Your task to perform on an android device: Open Google Image 0: 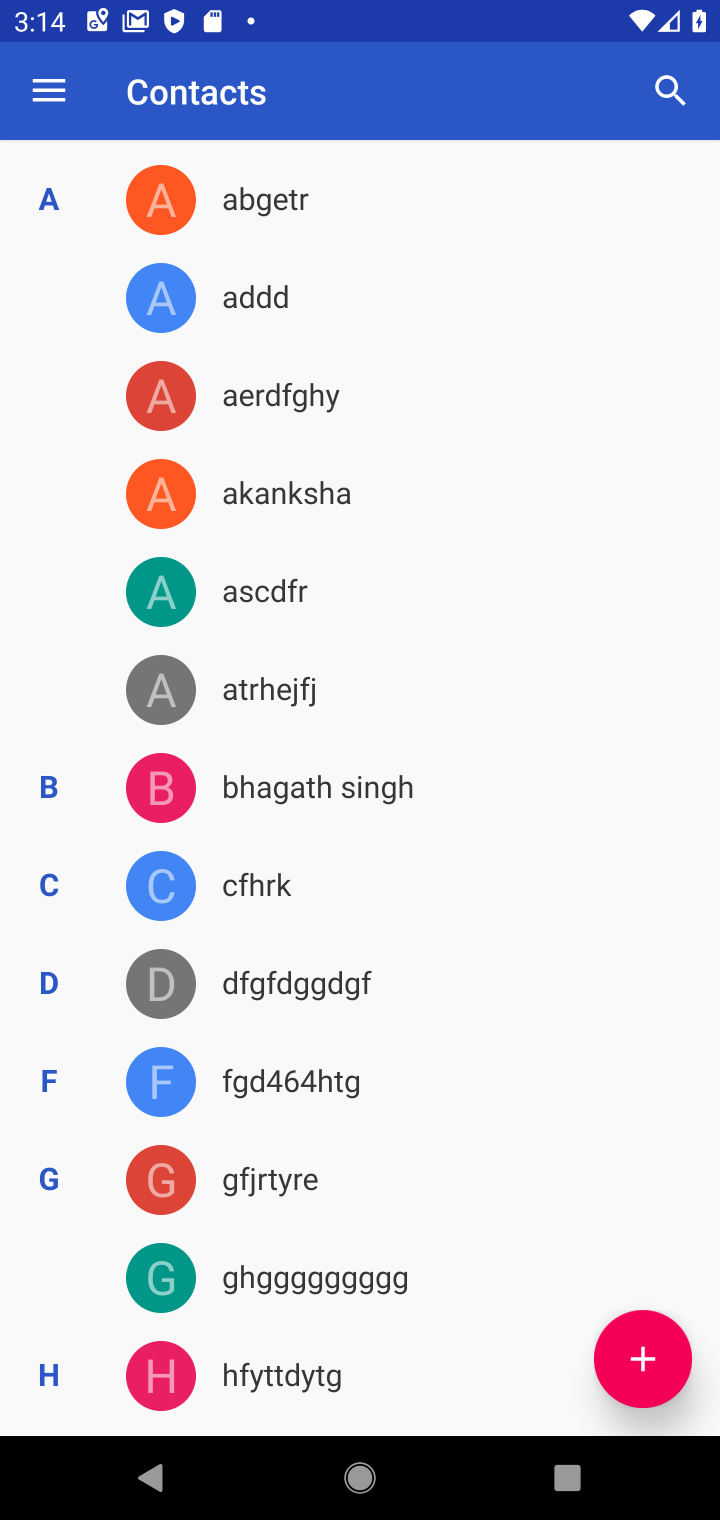
Step 0: press home button
Your task to perform on an android device: Open Google Image 1: 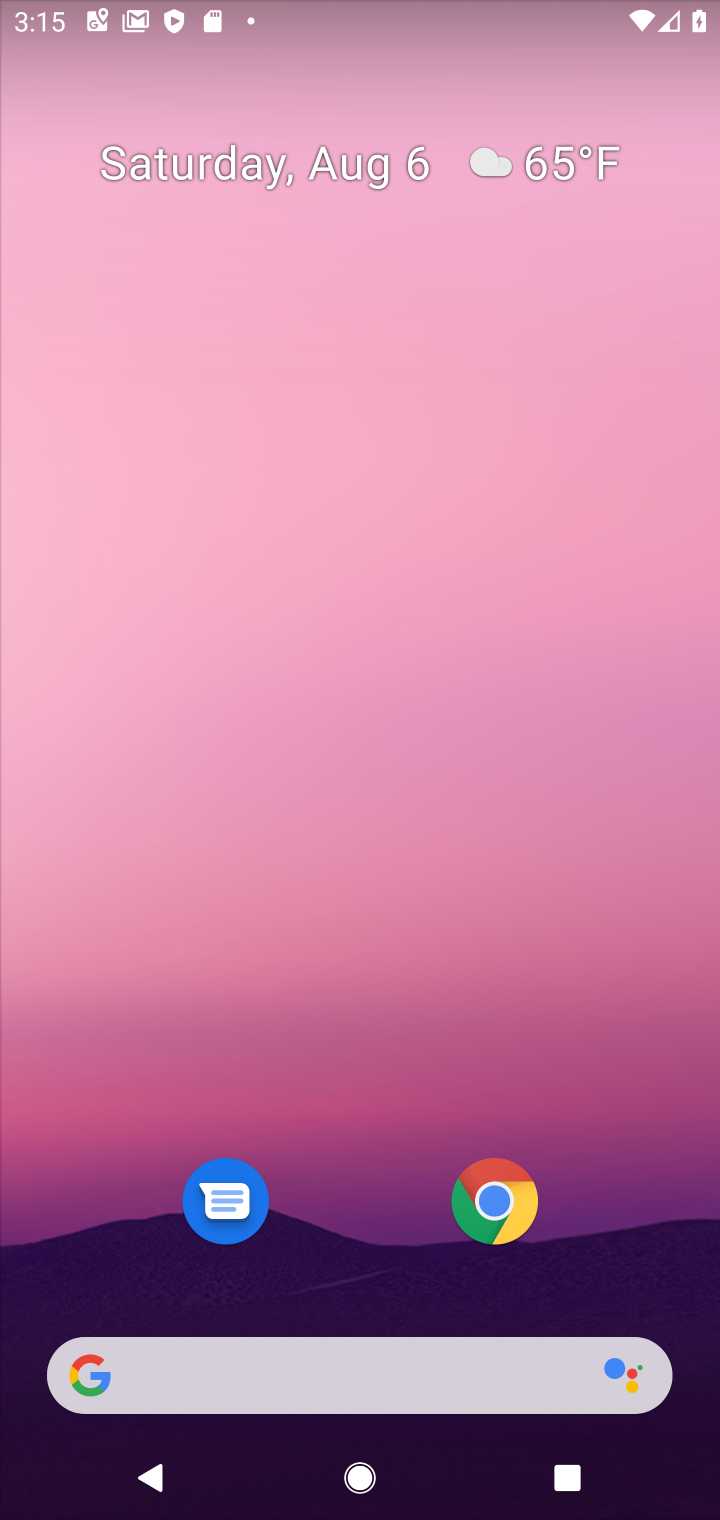
Step 1: drag from (241, 1372) to (314, 363)
Your task to perform on an android device: Open Google Image 2: 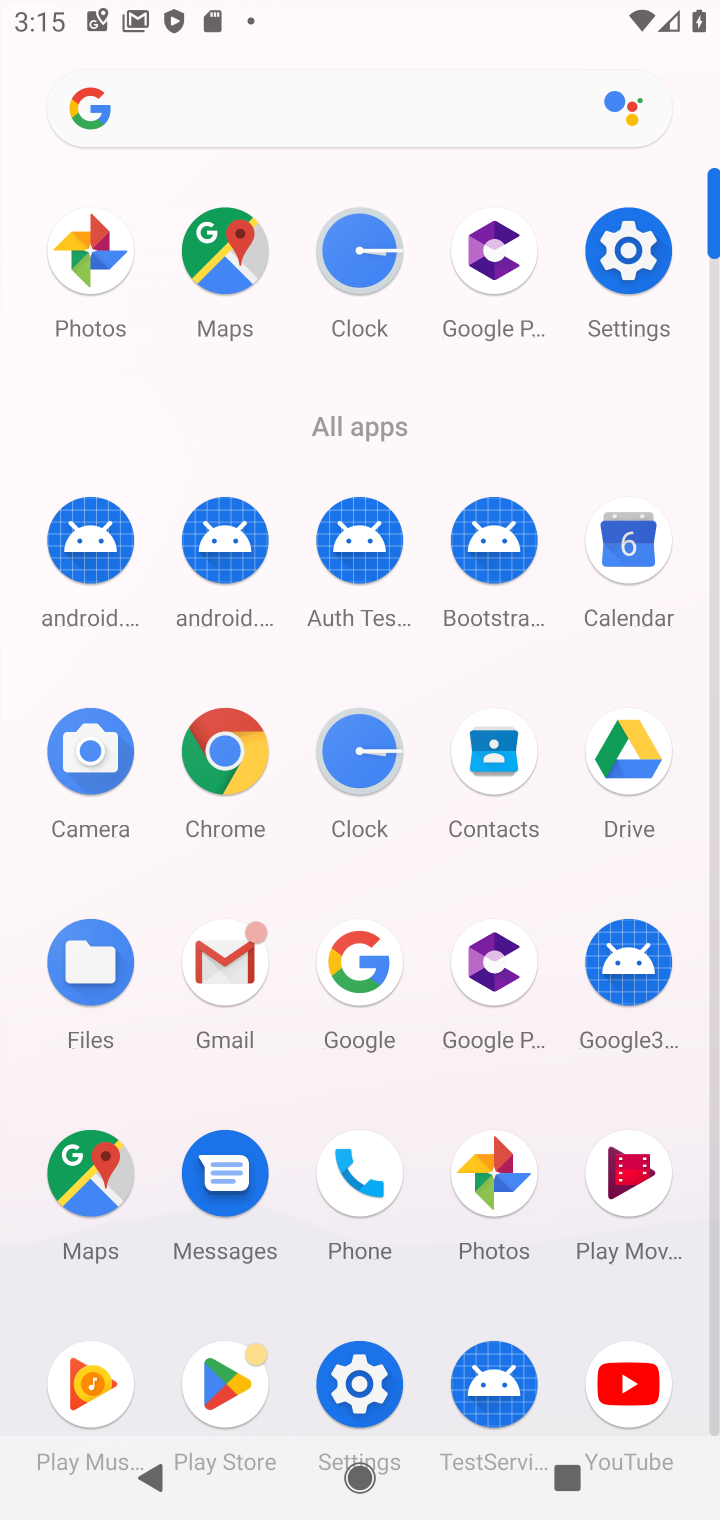
Step 2: click (345, 945)
Your task to perform on an android device: Open Google Image 3: 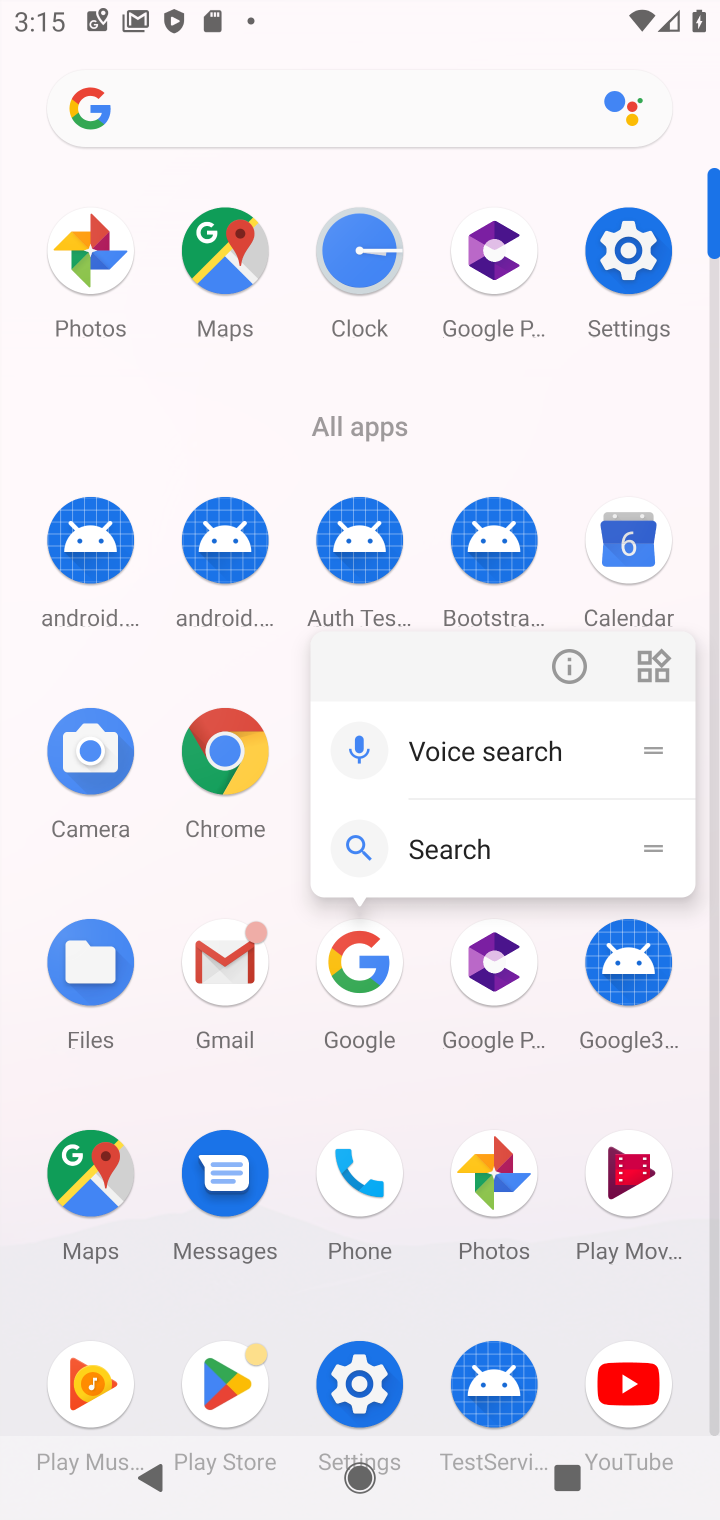
Step 3: click (345, 945)
Your task to perform on an android device: Open Google Image 4: 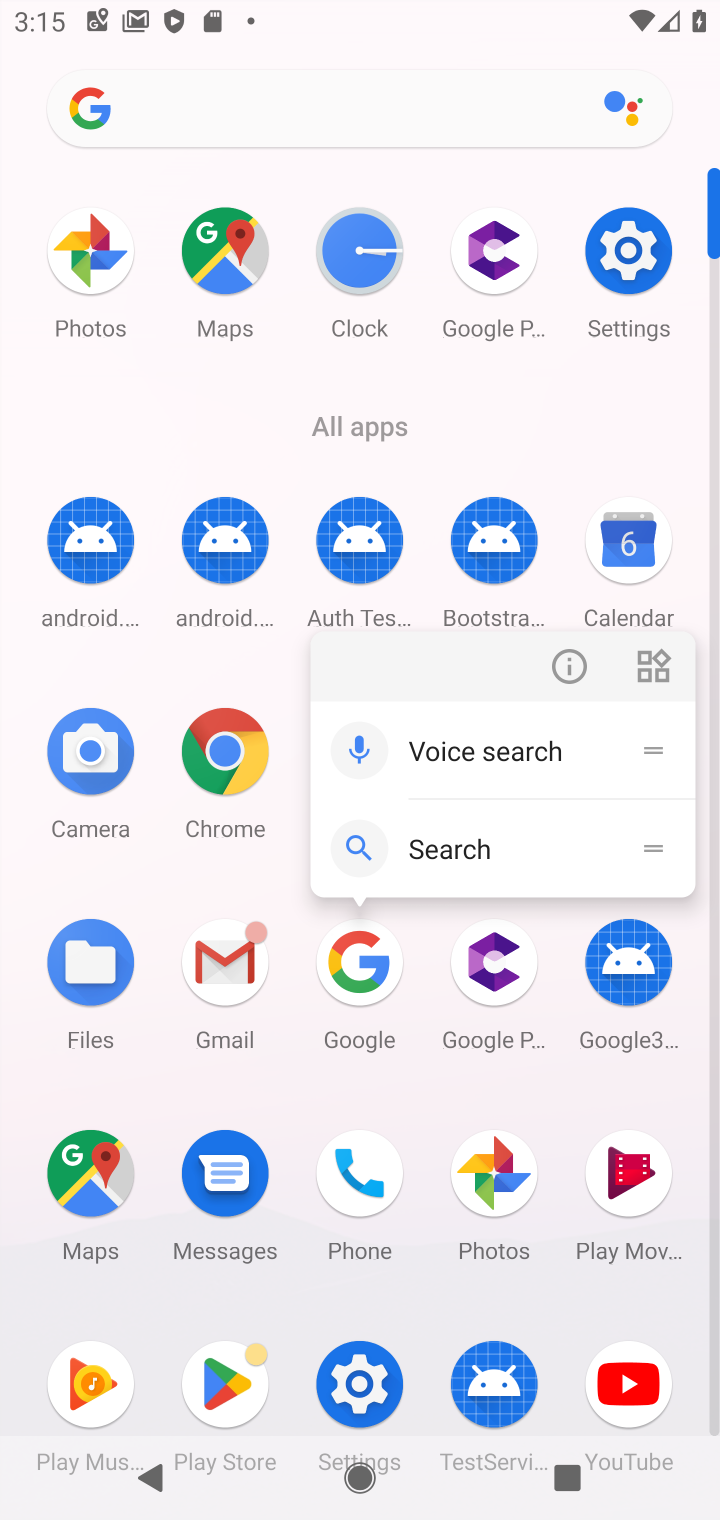
Step 4: click (375, 967)
Your task to perform on an android device: Open Google Image 5: 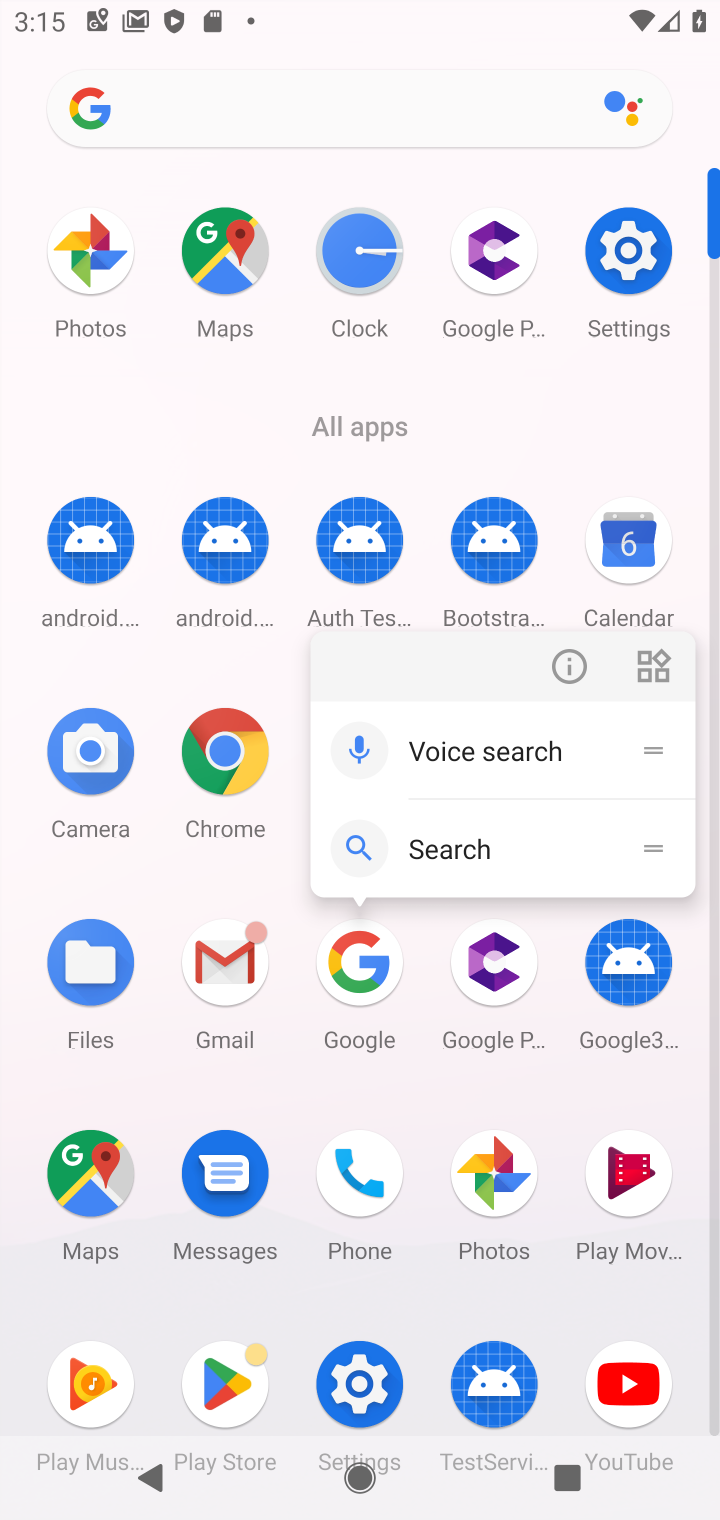
Step 5: click (375, 967)
Your task to perform on an android device: Open Google Image 6: 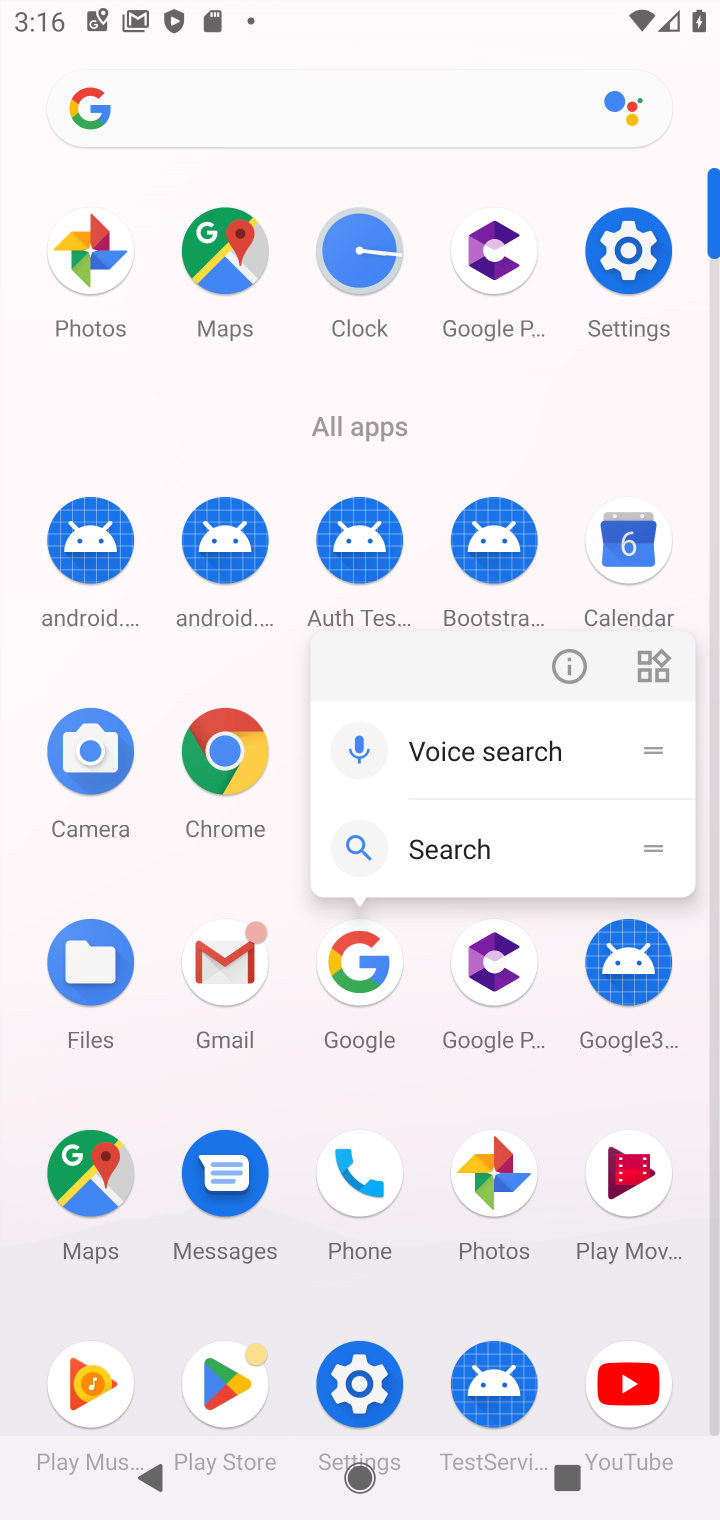
Step 6: click (359, 974)
Your task to perform on an android device: Open Google Image 7: 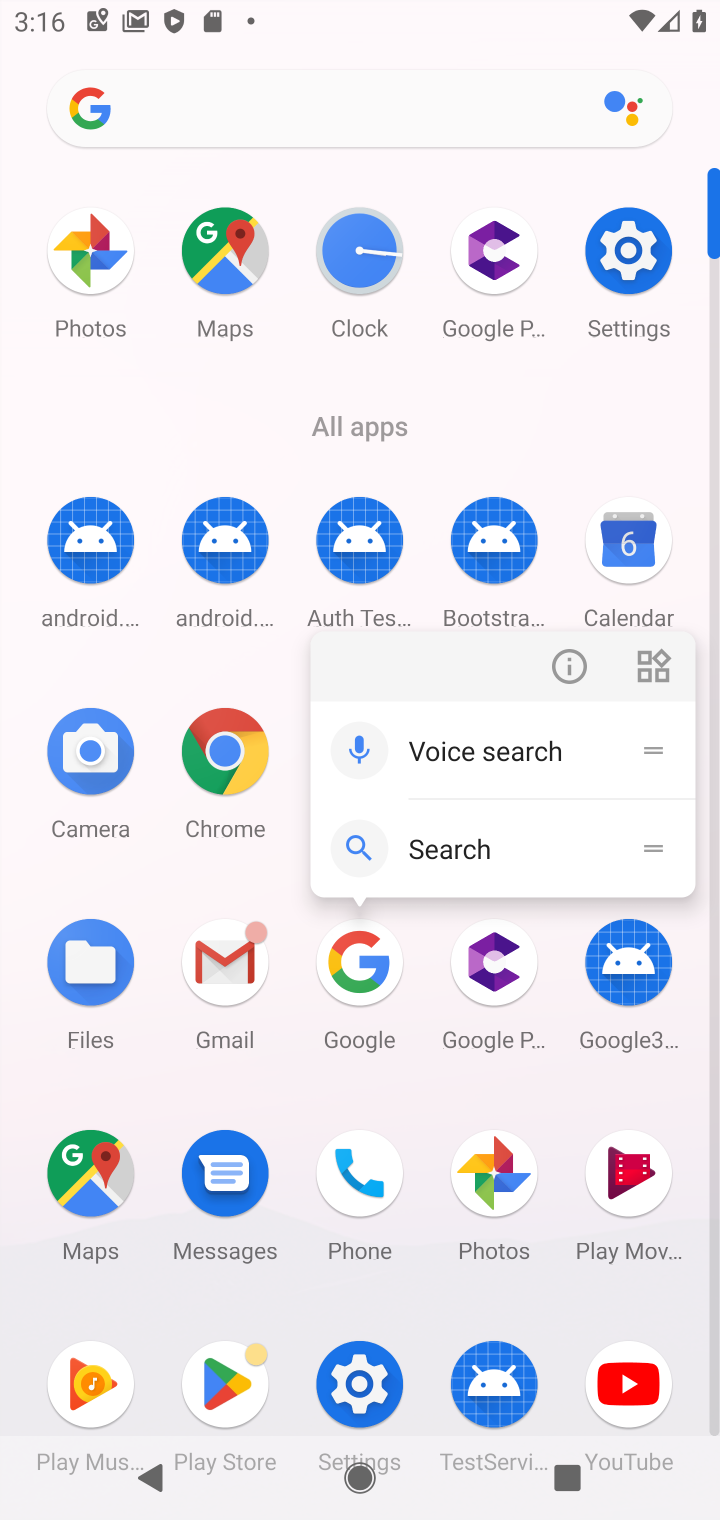
Step 7: click (359, 974)
Your task to perform on an android device: Open Google Image 8: 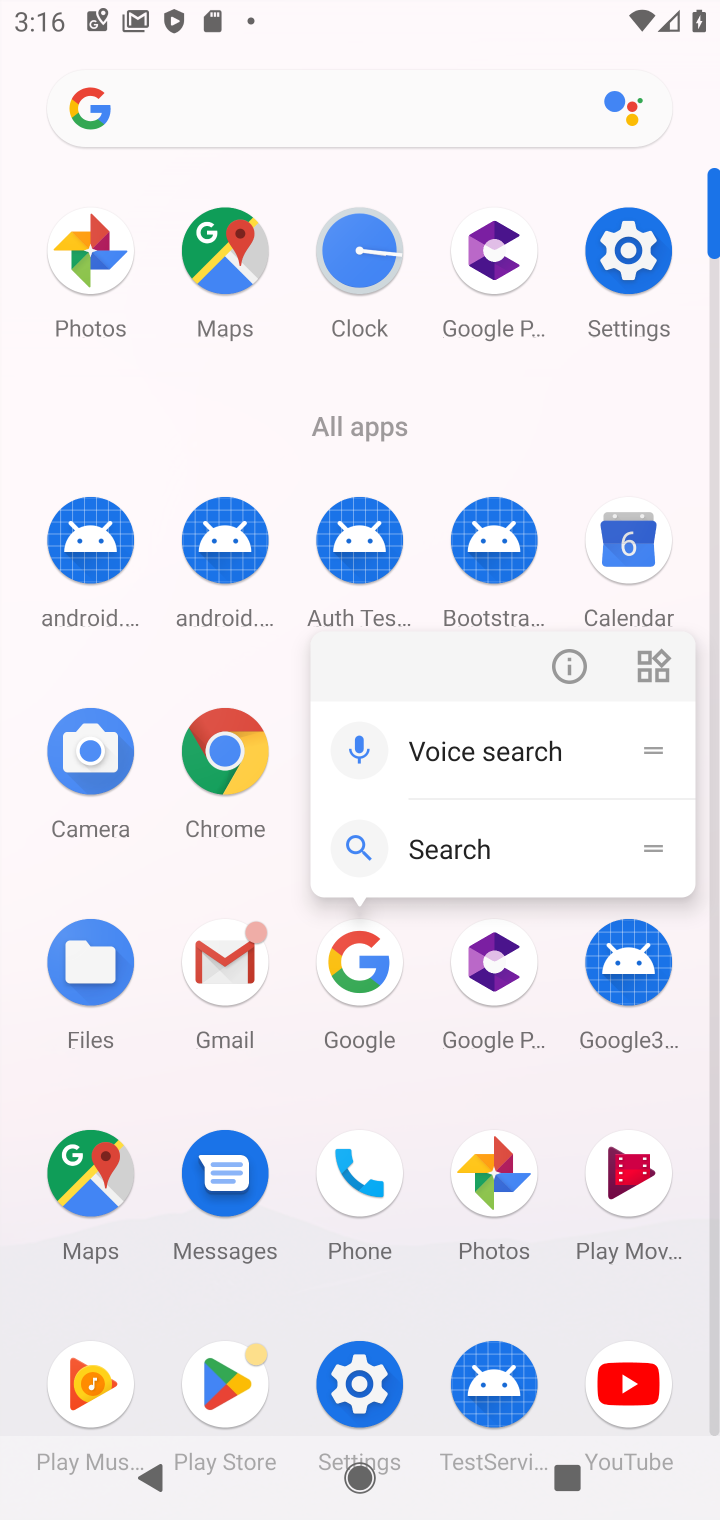
Step 8: click (359, 988)
Your task to perform on an android device: Open Google Image 9: 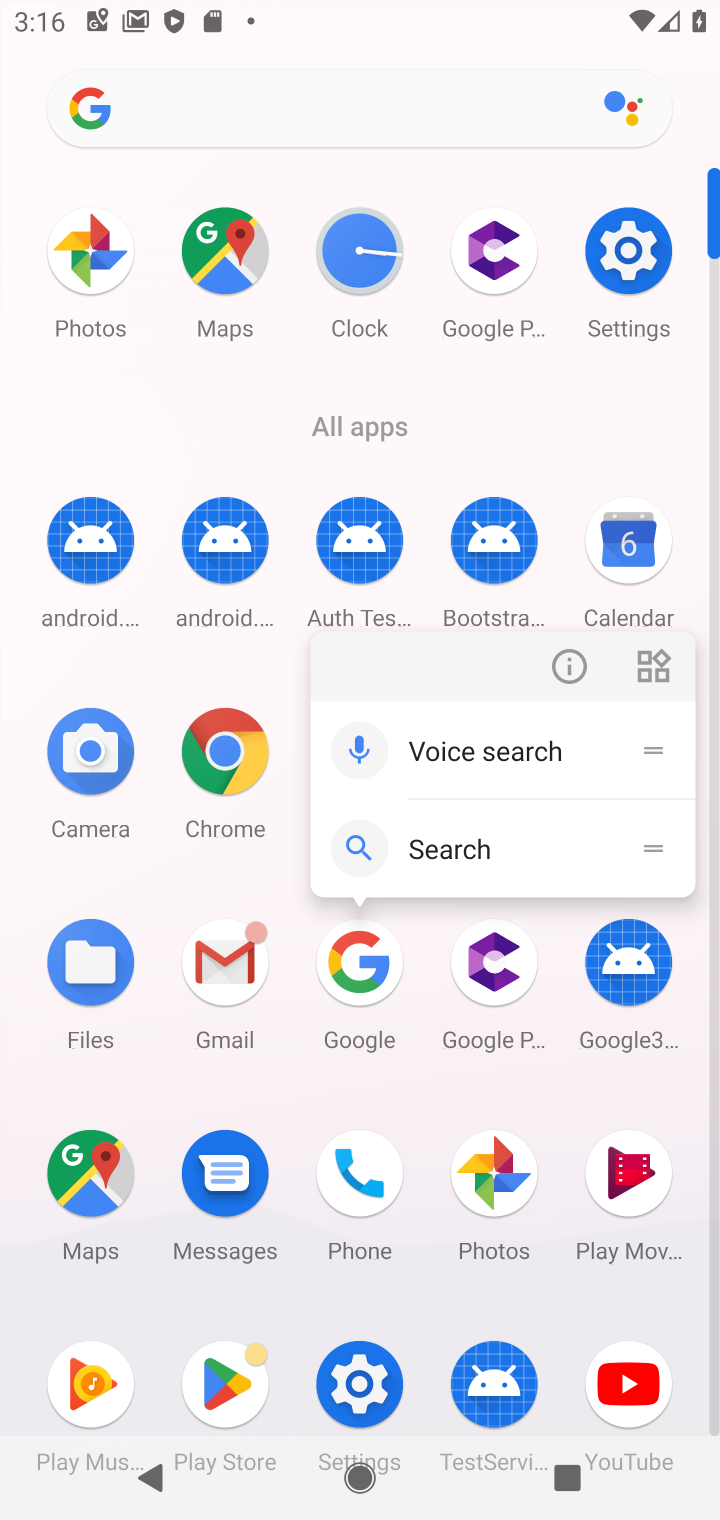
Step 9: click (359, 988)
Your task to perform on an android device: Open Google Image 10: 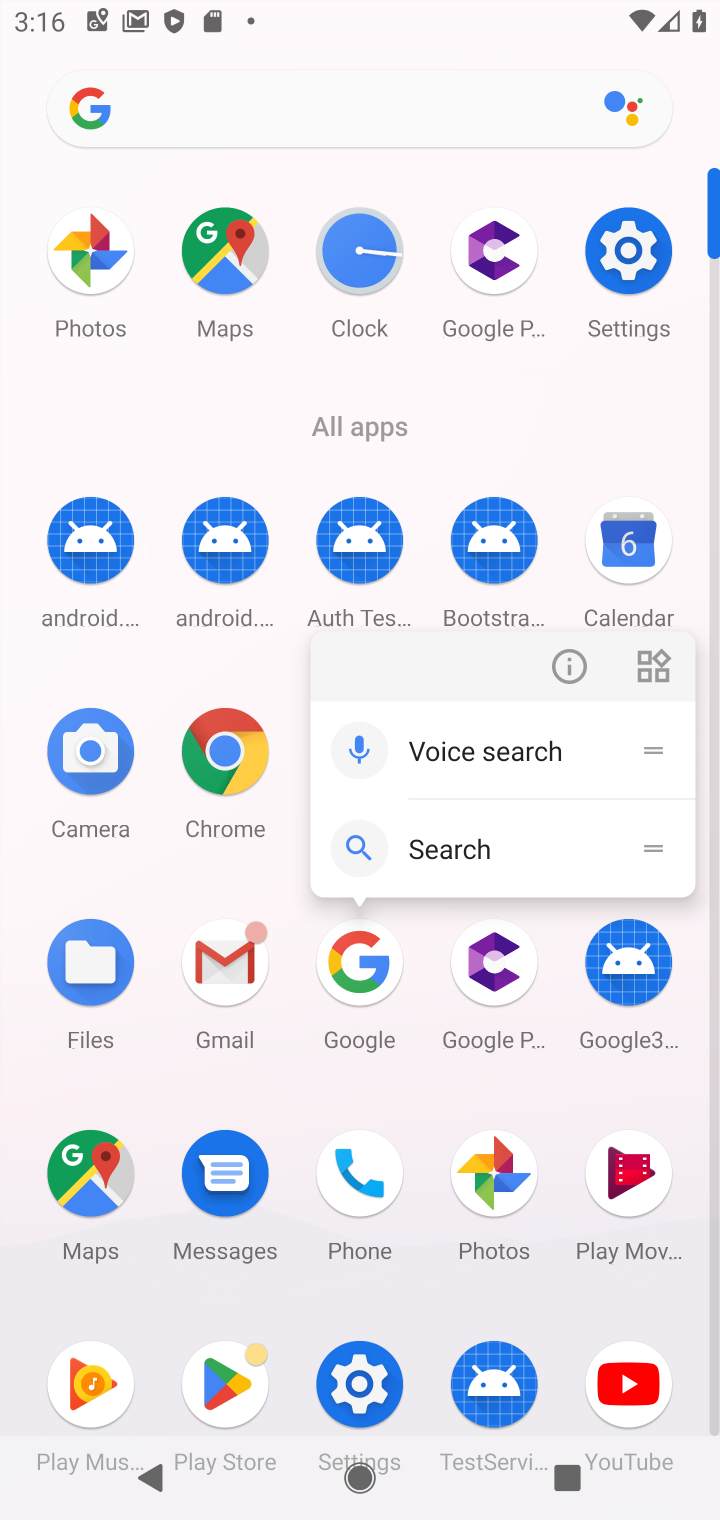
Step 10: click (359, 988)
Your task to perform on an android device: Open Google Image 11: 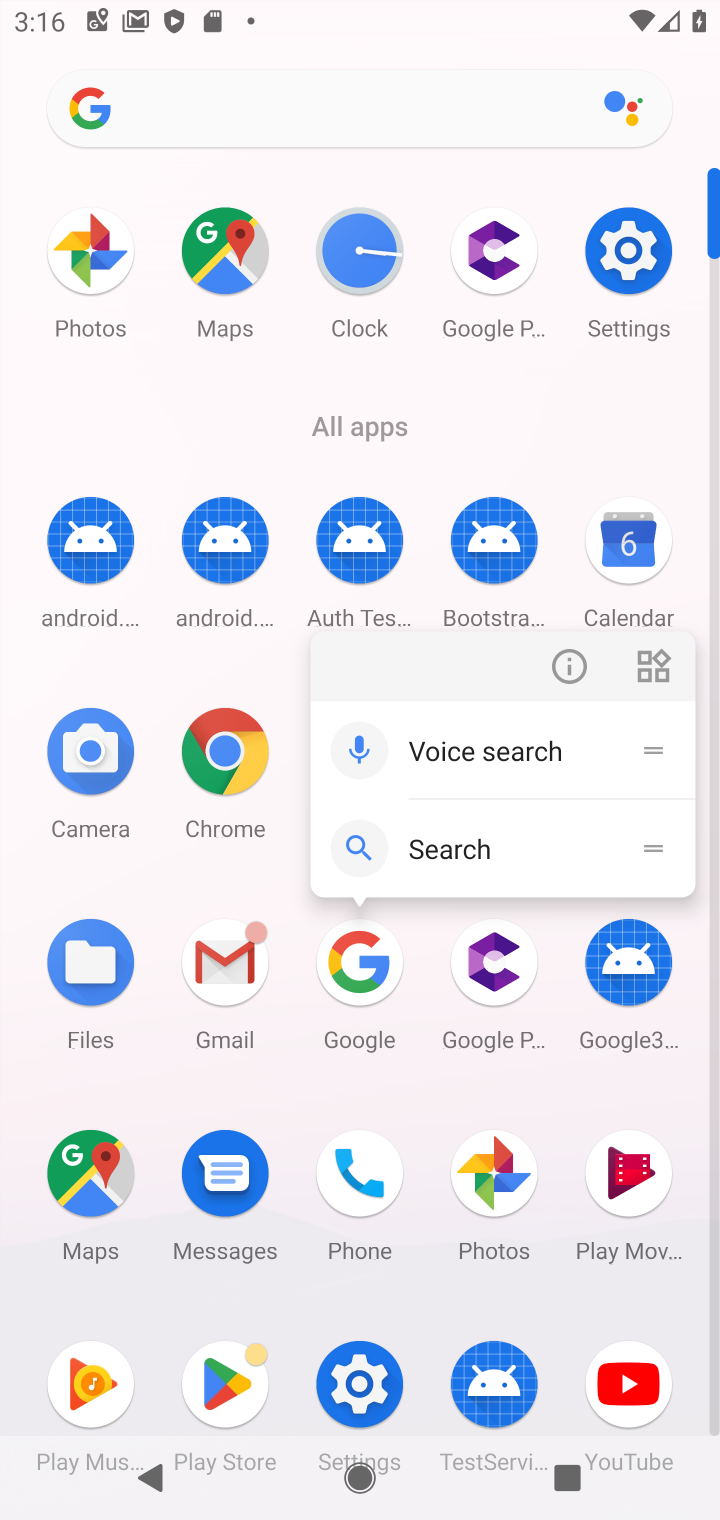
Step 11: click (366, 984)
Your task to perform on an android device: Open Google Image 12: 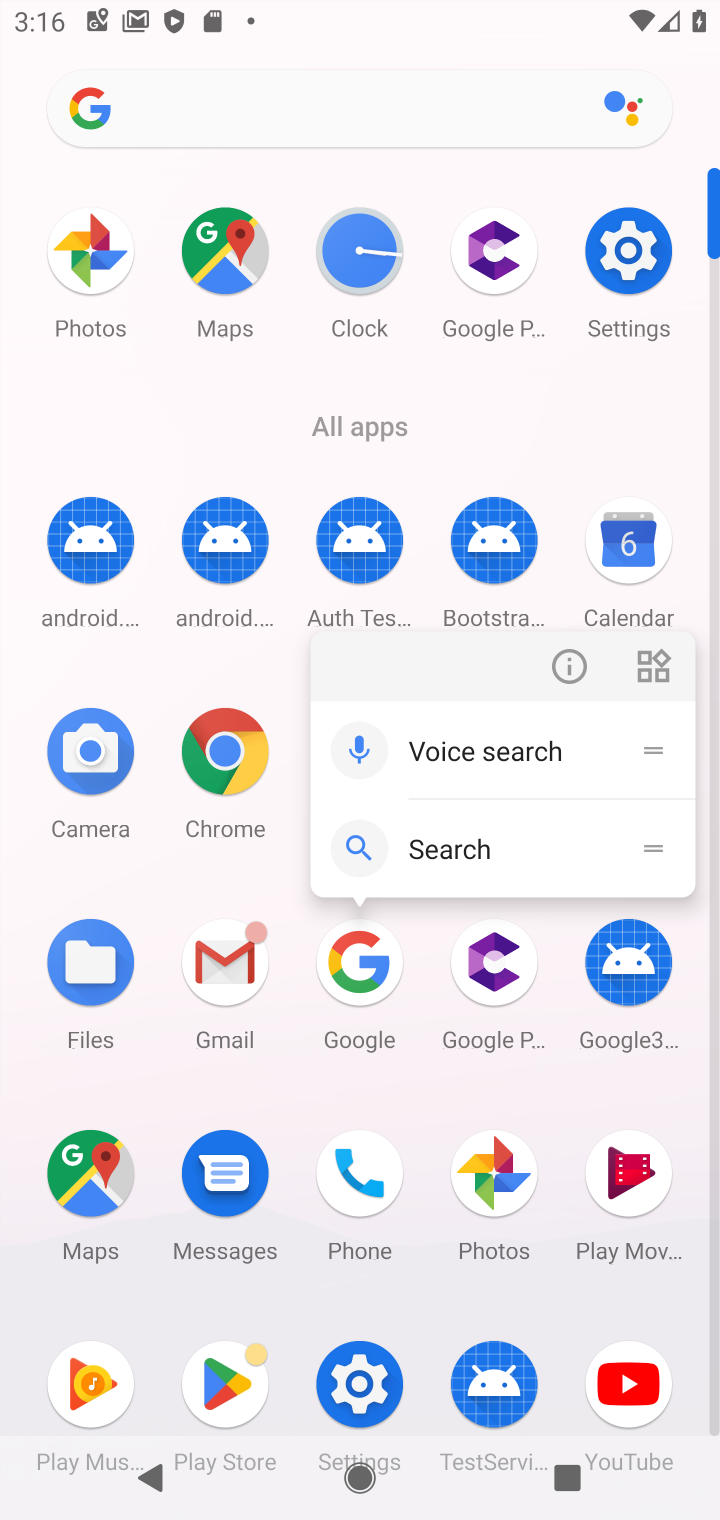
Step 12: click (366, 984)
Your task to perform on an android device: Open Google Image 13: 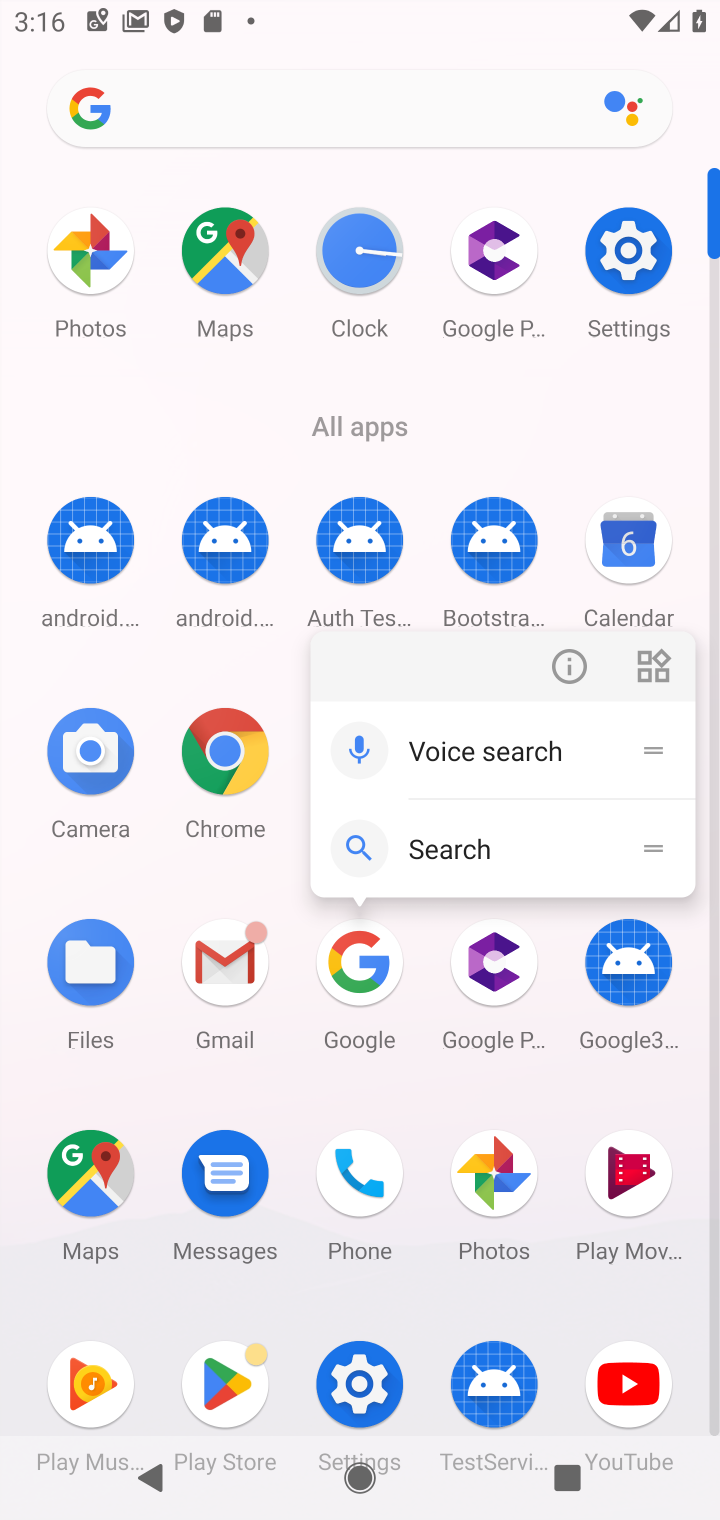
Step 13: click (366, 984)
Your task to perform on an android device: Open Google Image 14: 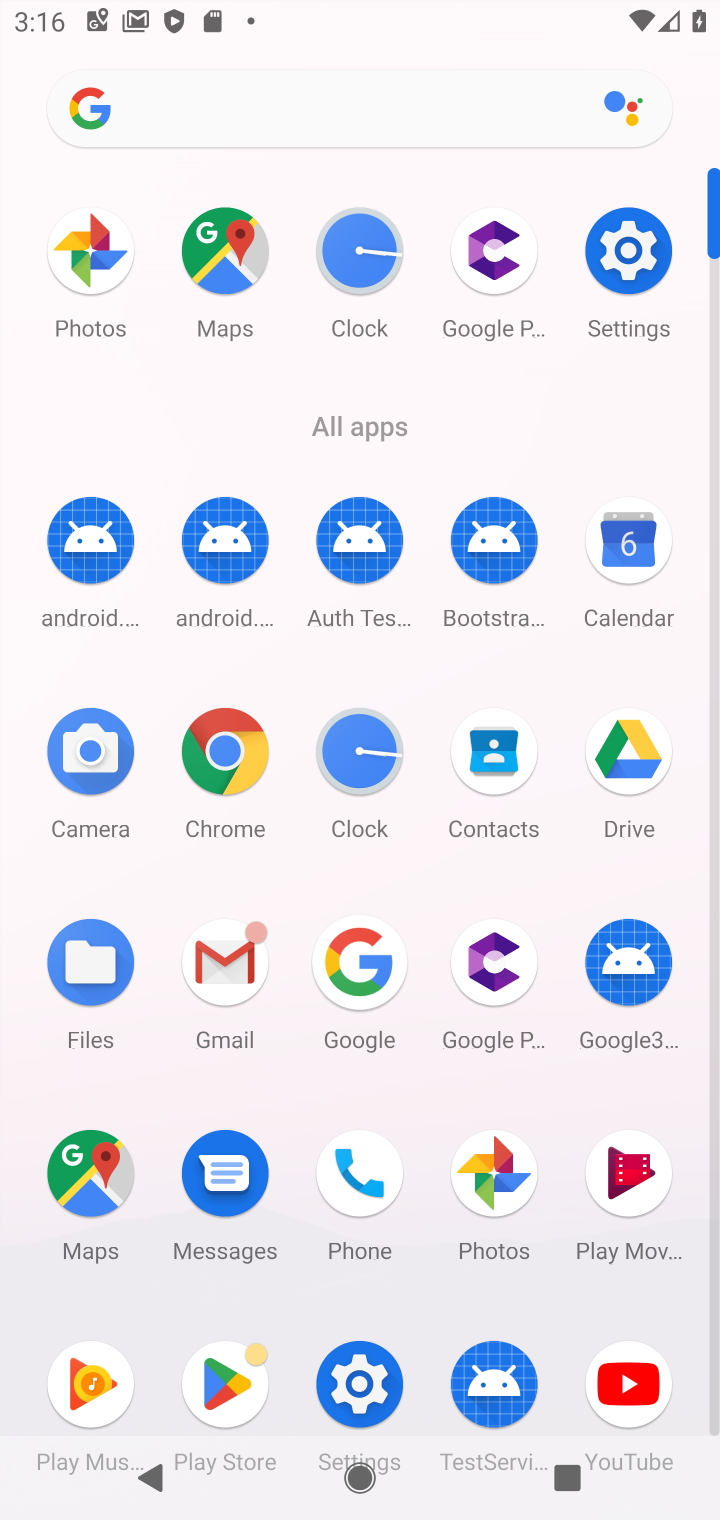
Step 14: click (366, 984)
Your task to perform on an android device: Open Google Image 15: 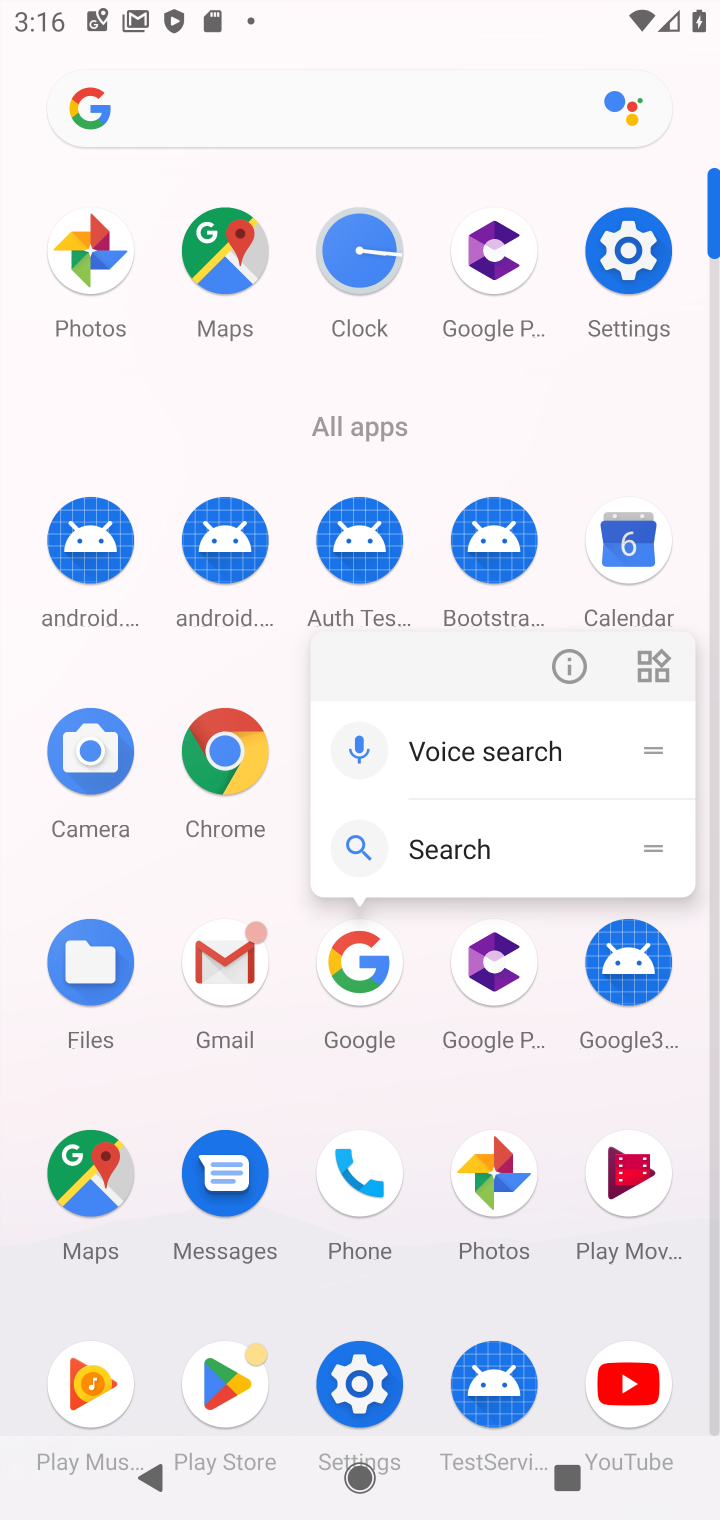
Step 15: click (330, 971)
Your task to perform on an android device: Open Google Image 16: 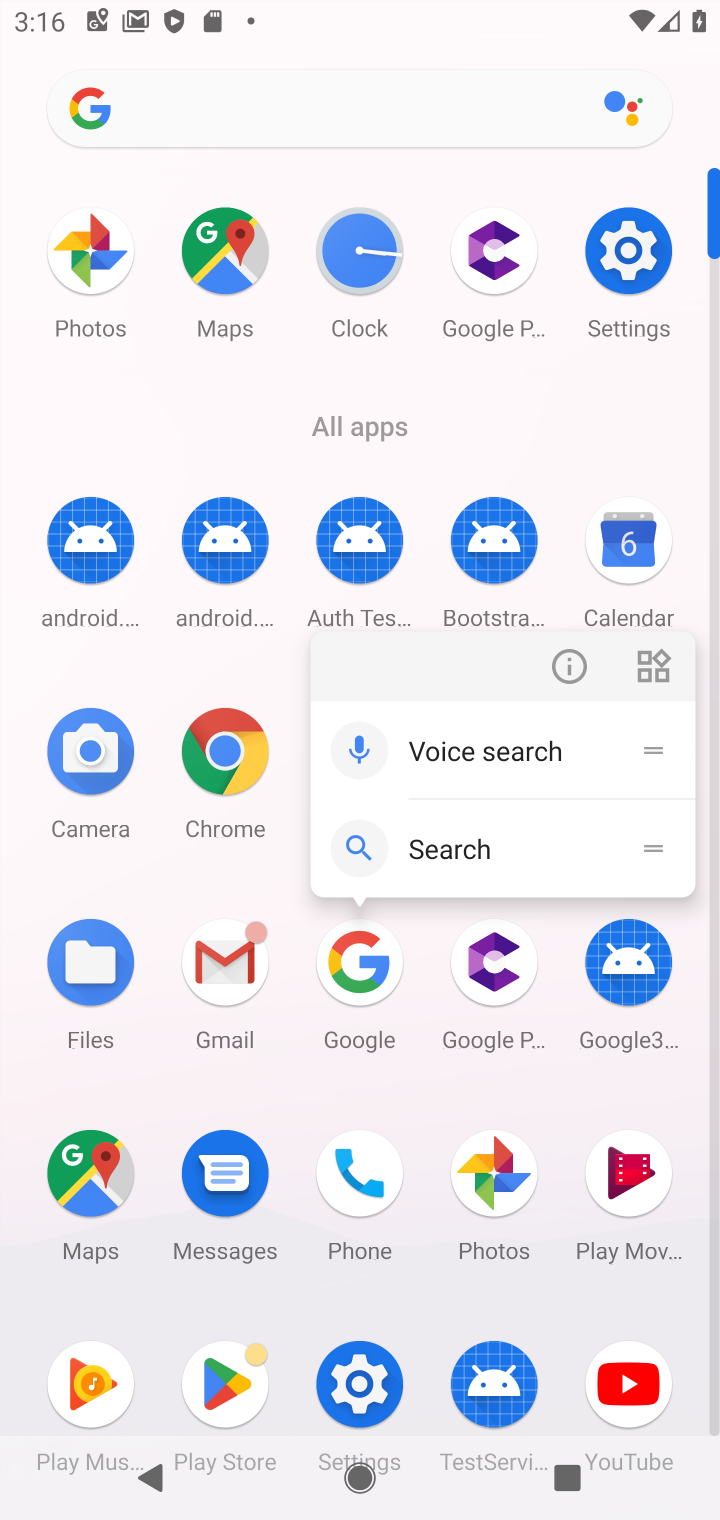
Step 16: click (330, 971)
Your task to perform on an android device: Open Google Image 17: 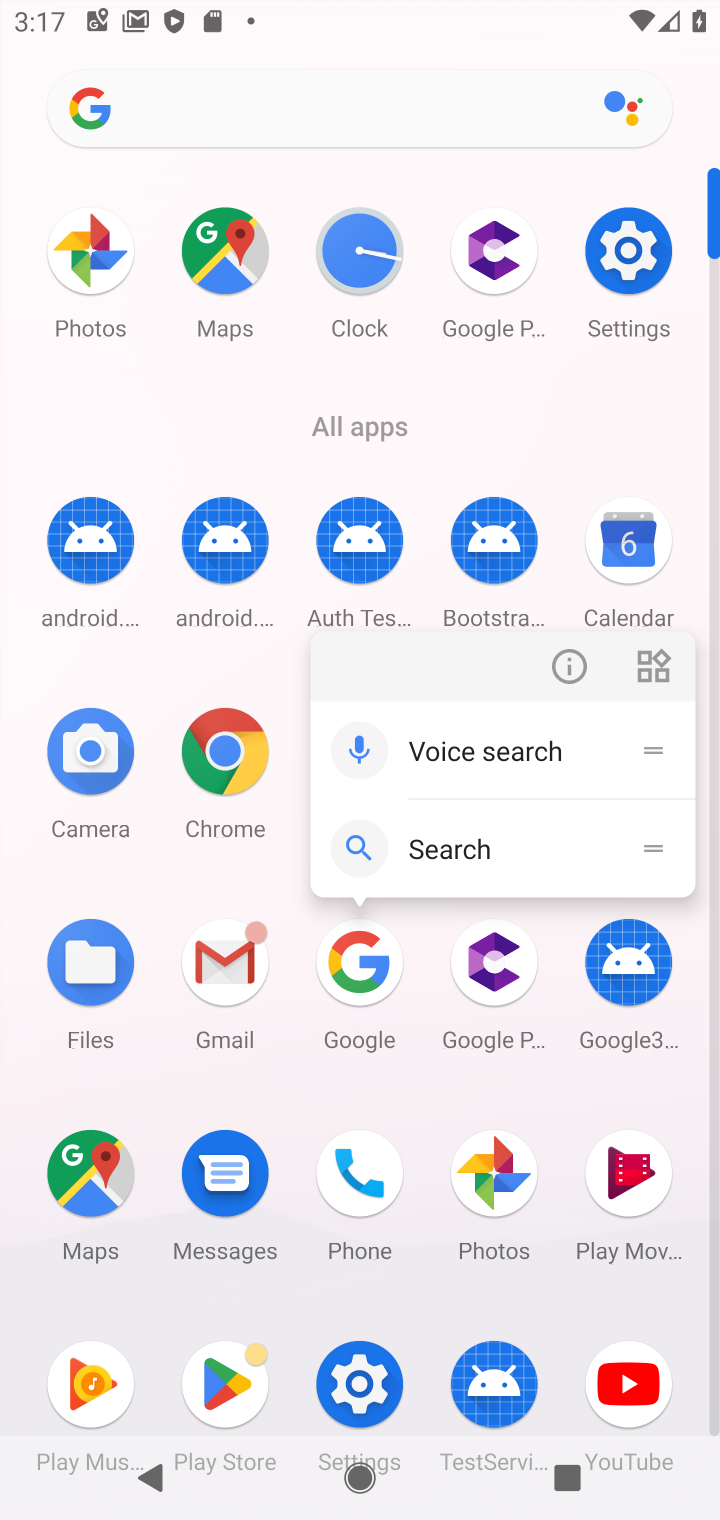
Step 17: click (342, 962)
Your task to perform on an android device: Open Google Image 18: 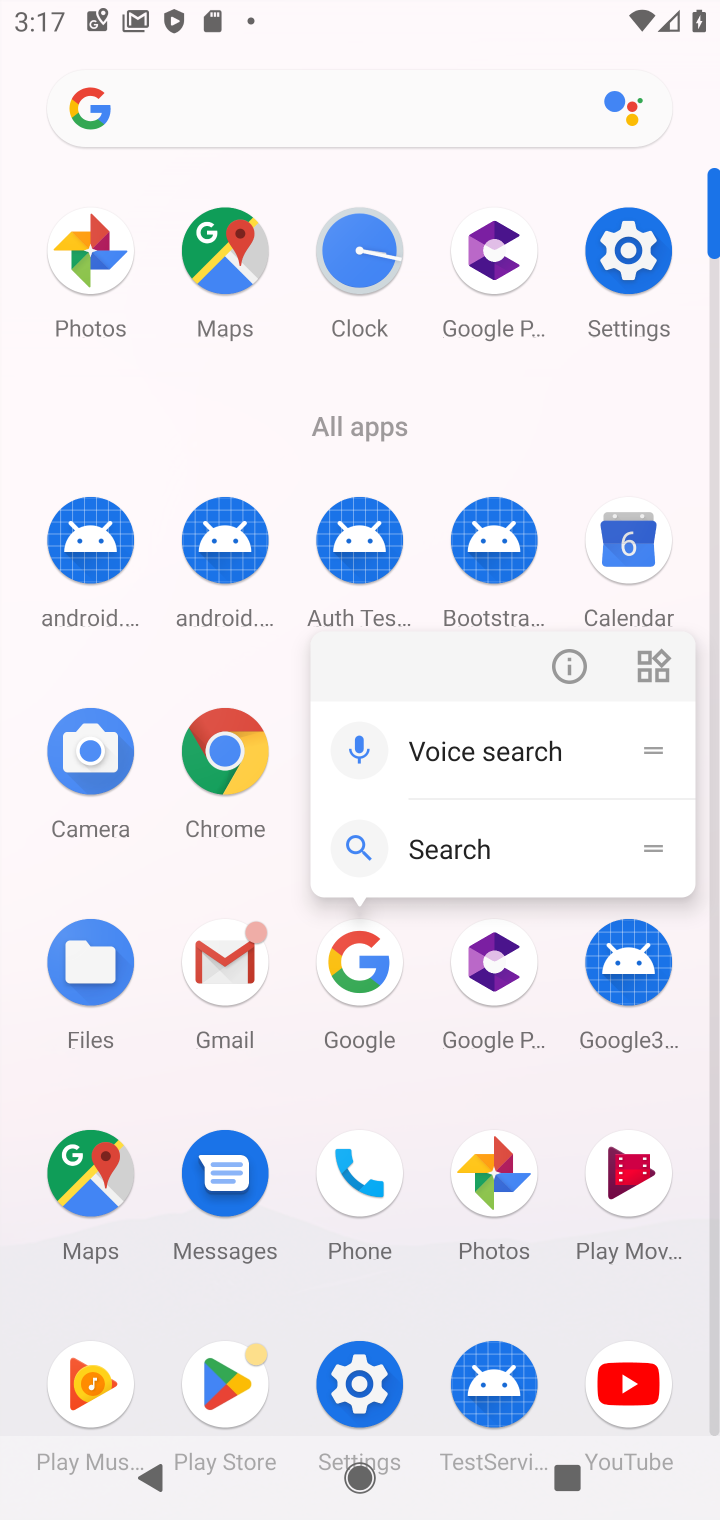
Step 18: click (349, 975)
Your task to perform on an android device: Open Google Image 19: 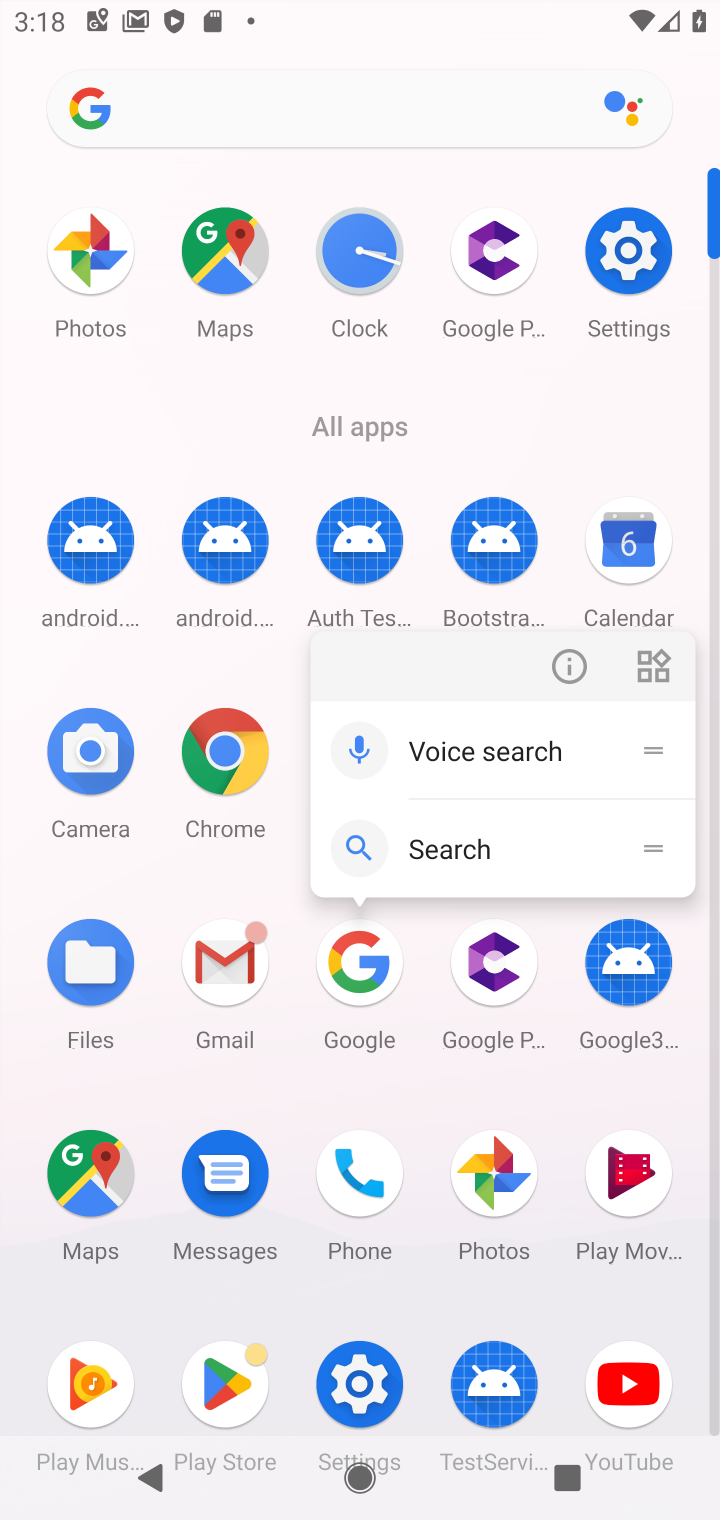
Step 19: click (361, 992)
Your task to perform on an android device: Open Google Image 20: 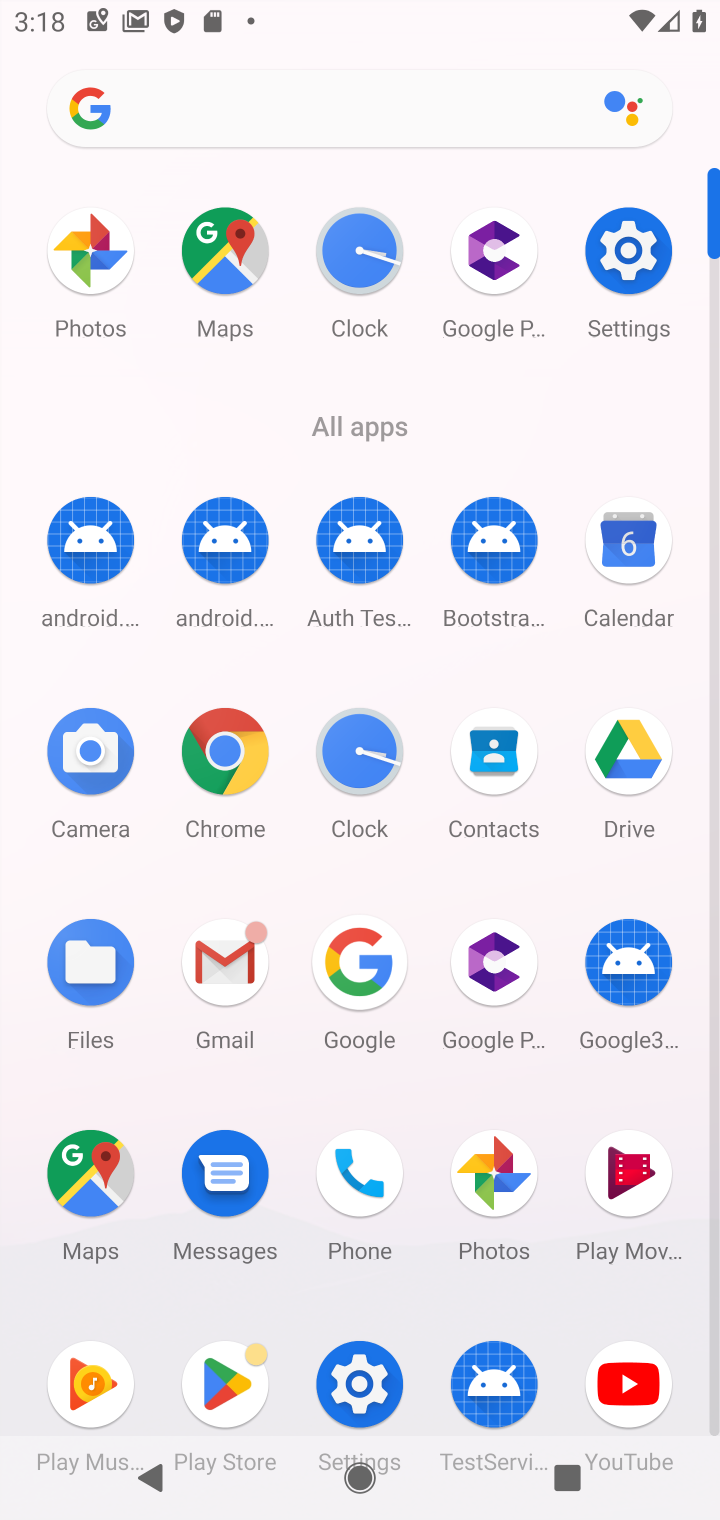
Step 20: click (361, 992)
Your task to perform on an android device: Open Google Image 21: 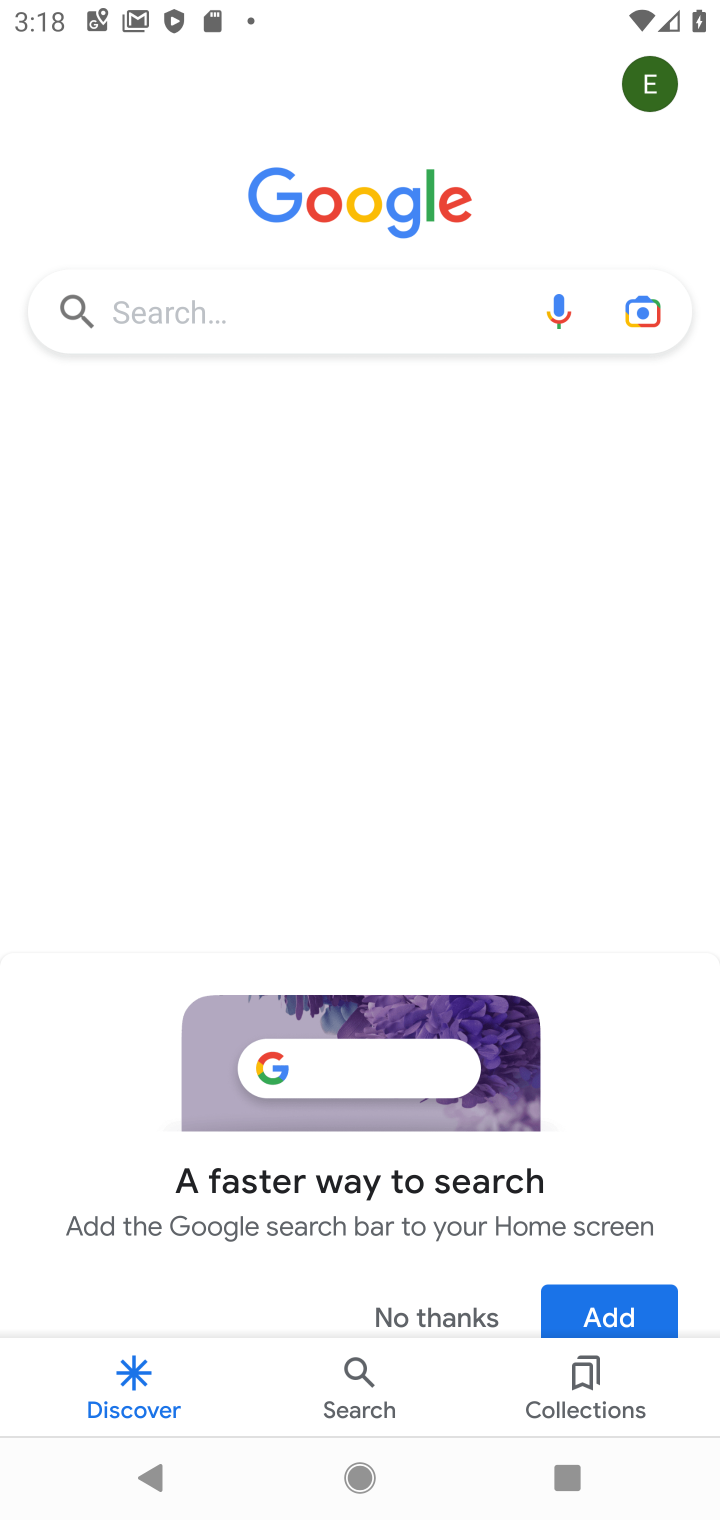
Step 21: task complete